Your task to perform on an android device: Open battery settings Image 0: 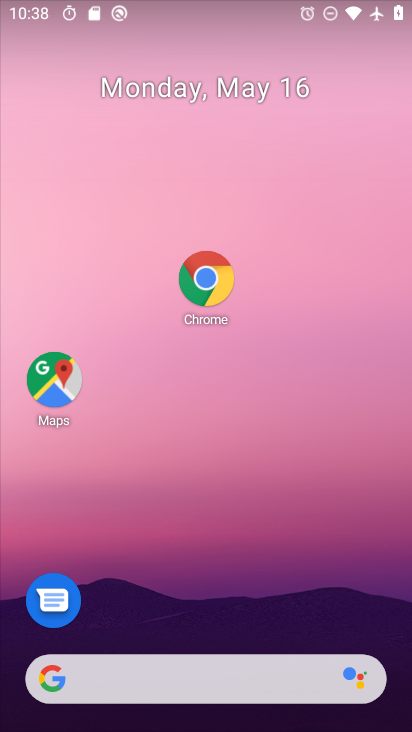
Step 0: press home button
Your task to perform on an android device: Open battery settings Image 1: 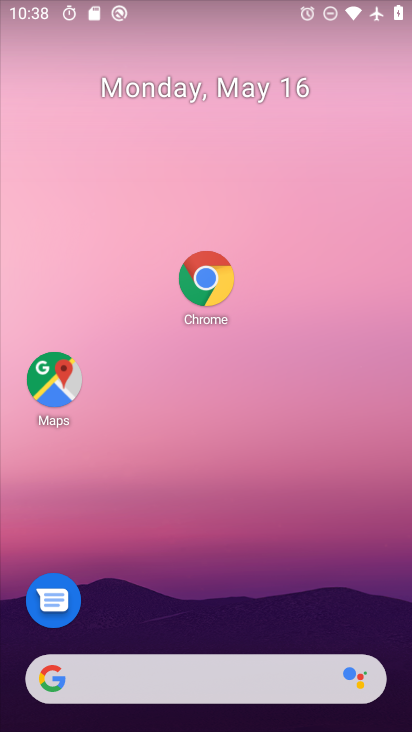
Step 1: drag from (176, 674) to (322, 204)
Your task to perform on an android device: Open battery settings Image 2: 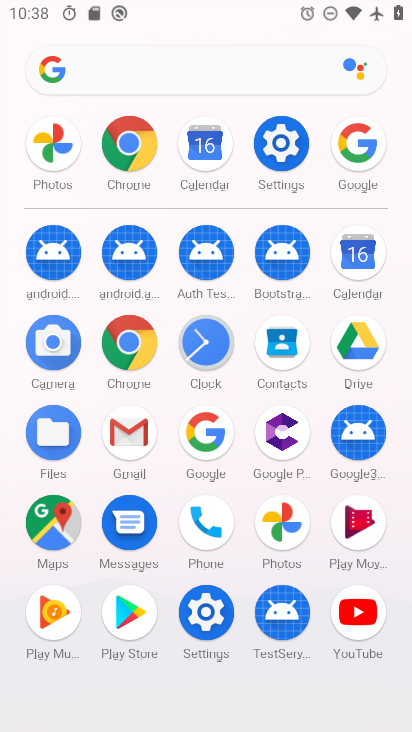
Step 2: click (273, 139)
Your task to perform on an android device: Open battery settings Image 3: 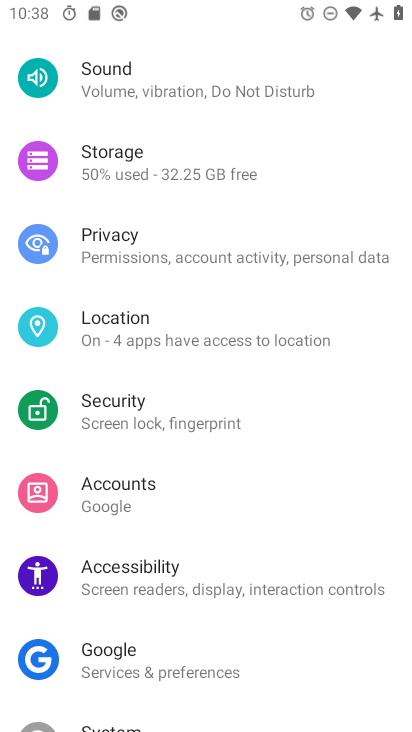
Step 3: drag from (310, 163) to (242, 544)
Your task to perform on an android device: Open battery settings Image 4: 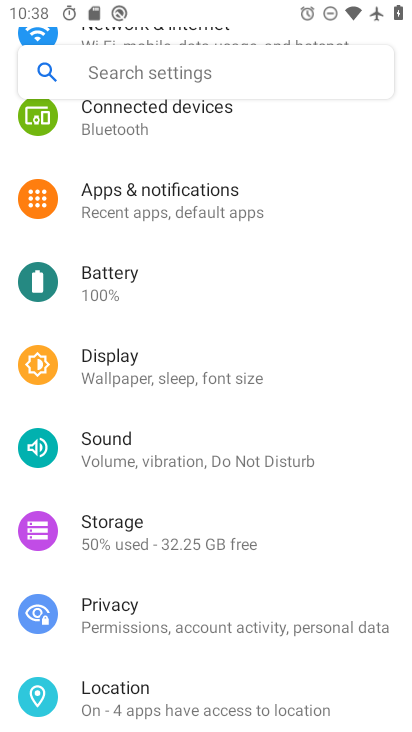
Step 4: click (144, 276)
Your task to perform on an android device: Open battery settings Image 5: 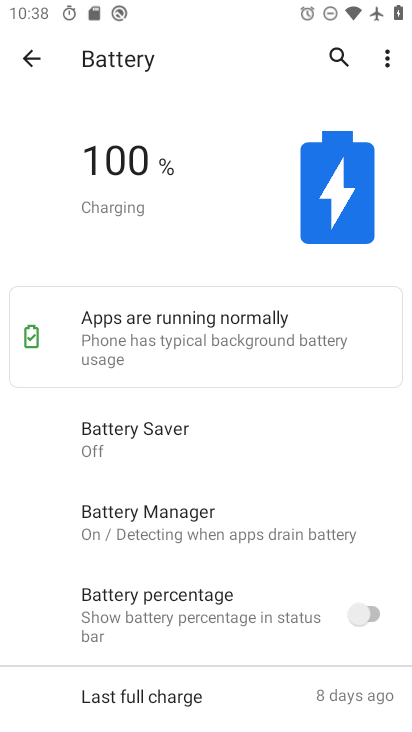
Step 5: task complete